Your task to perform on an android device: install app "NewsBreak: Local News & Alerts" Image 0: 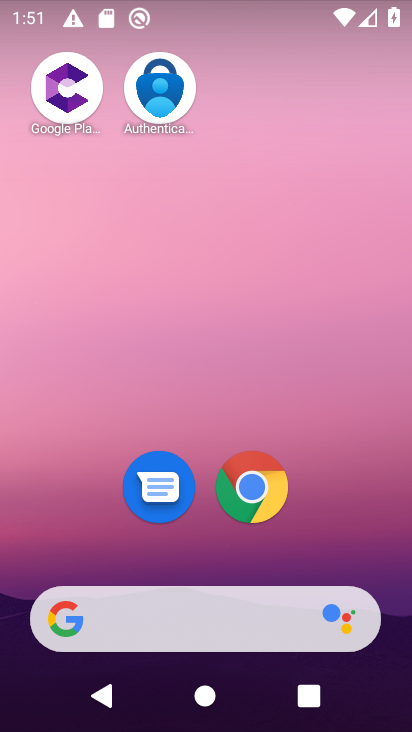
Step 0: drag from (204, 604) to (103, 138)
Your task to perform on an android device: install app "NewsBreak: Local News & Alerts" Image 1: 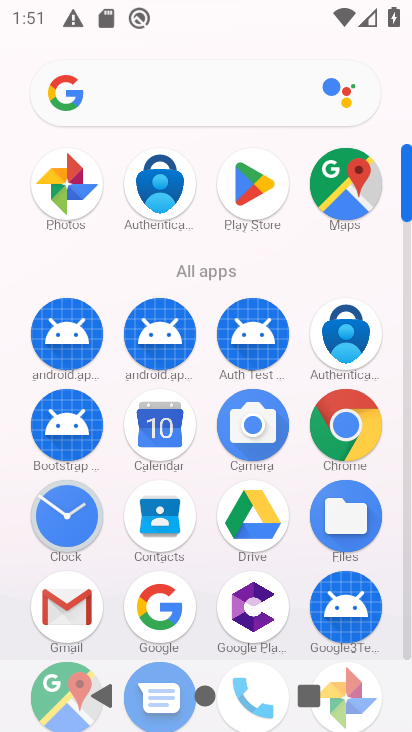
Step 1: click (251, 181)
Your task to perform on an android device: install app "NewsBreak: Local News & Alerts" Image 2: 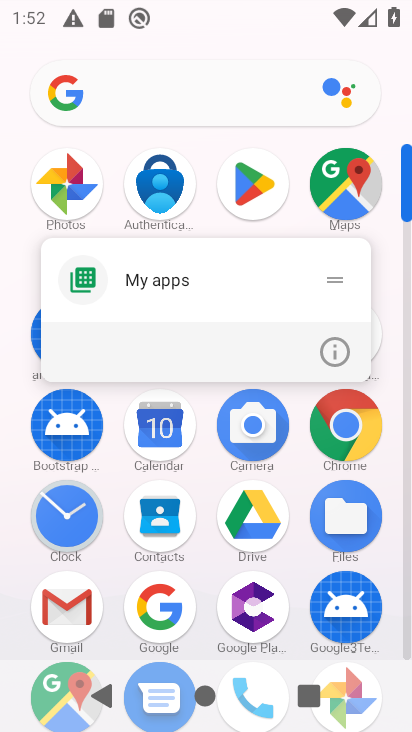
Step 2: click (269, 195)
Your task to perform on an android device: install app "NewsBreak: Local News & Alerts" Image 3: 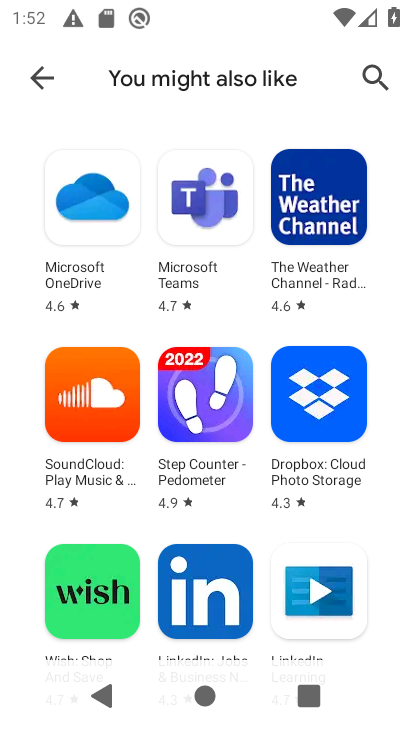
Step 3: click (370, 74)
Your task to perform on an android device: install app "NewsBreak: Local News & Alerts" Image 4: 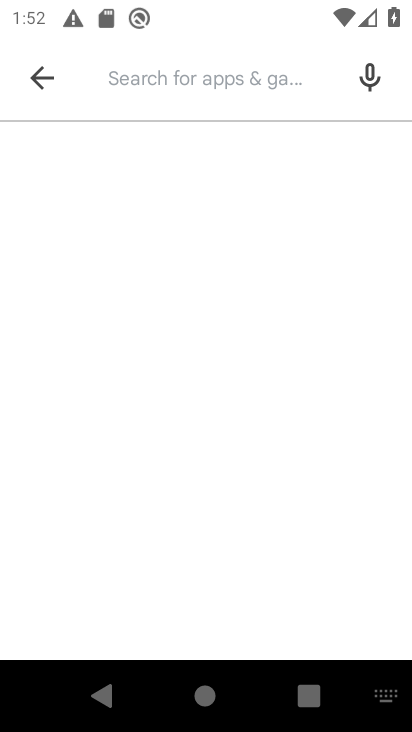
Step 4: type "NewsBreak: Local News & Alerts"
Your task to perform on an android device: install app "NewsBreak: Local News & Alerts" Image 5: 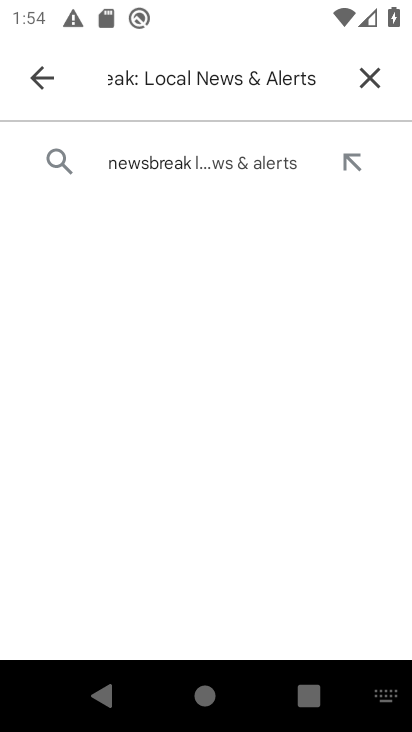
Step 5: click (249, 160)
Your task to perform on an android device: install app "NewsBreak: Local News & Alerts" Image 6: 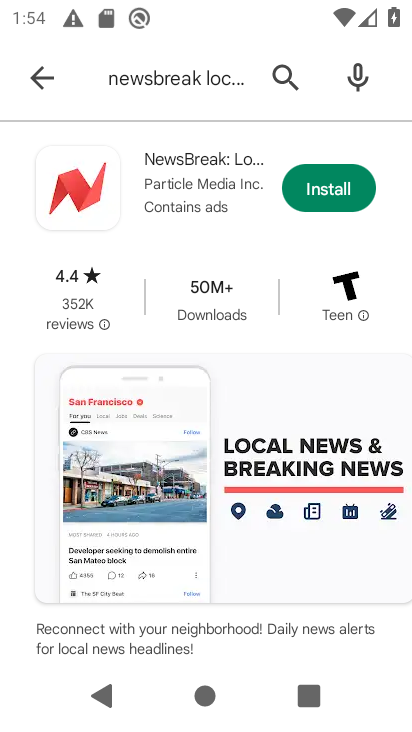
Step 6: click (329, 188)
Your task to perform on an android device: install app "NewsBreak: Local News & Alerts" Image 7: 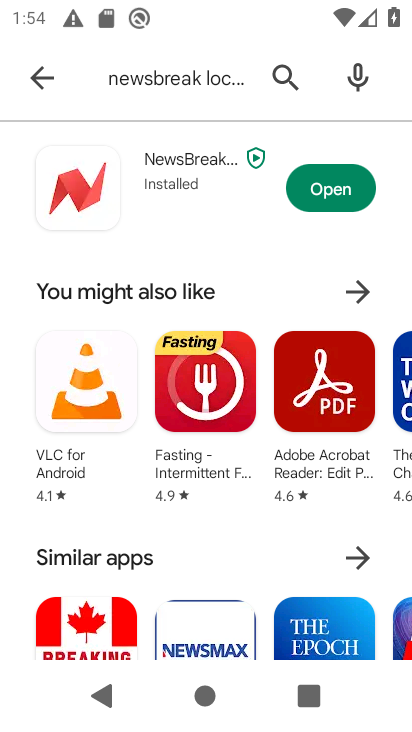
Step 7: click (314, 192)
Your task to perform on an android device: install app "NewsBreak: Local News & Alerts" Image 8: 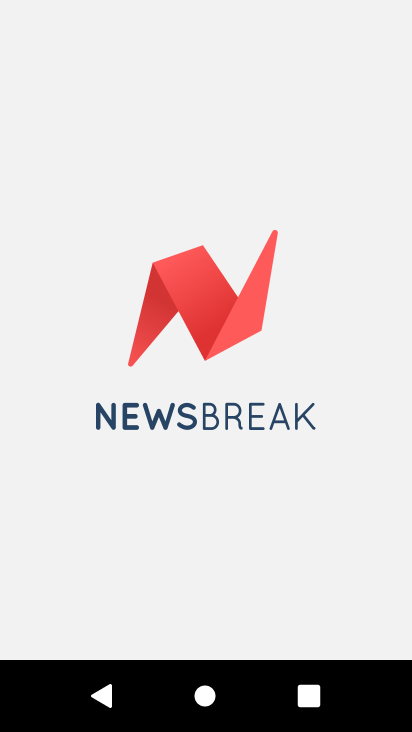
Step 8: task complete